Your task to perform on an android device: Do I have any events this weekend? Image 0: 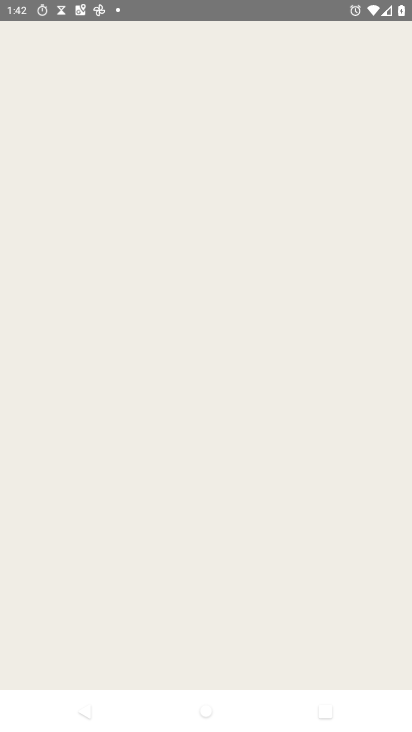
Step 0: press home button
Your task to perform on an android device: Do I have any events this weekend? Image 1: 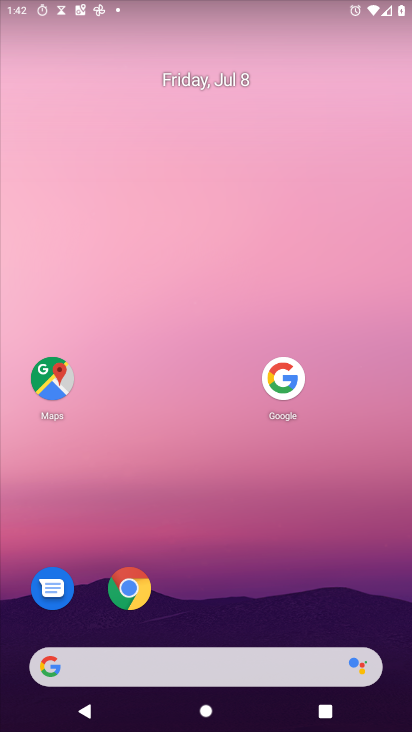
Step 1: drag from (153, 670) to (290, 147)
Your task to perform on an android device: Do I have any events this weekend? Image 2: 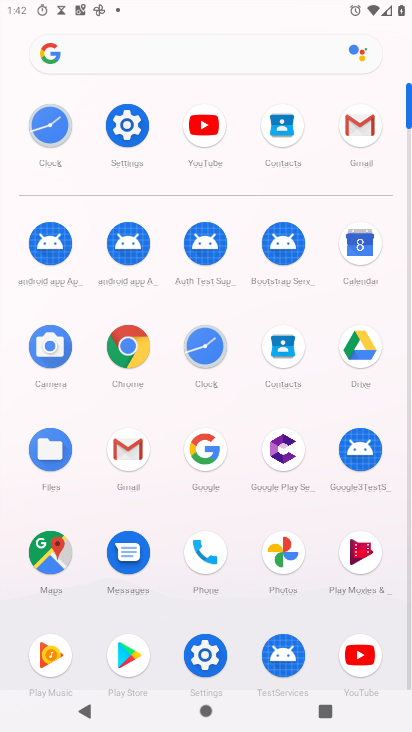
Step 2: click (357, 252)
Your task to perform on an android device: Do I have any events this weekend? Image 3: 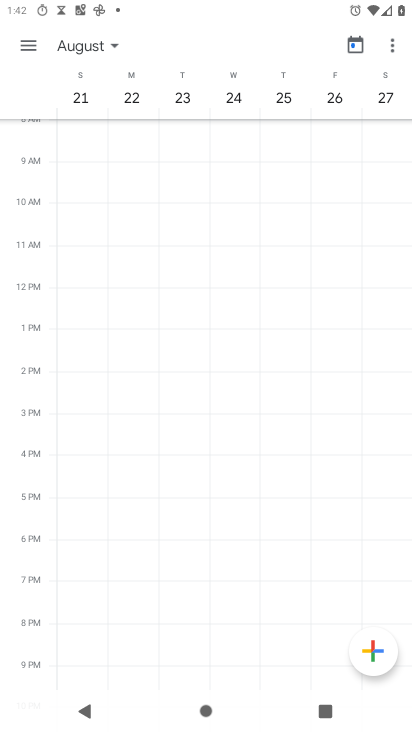
Step 3: click (65, 44)
Your task to perform on an android device: Do I have any events this weekend? Image 4: 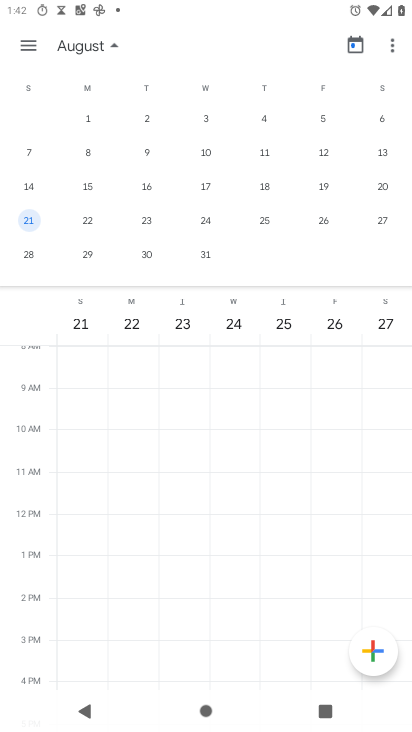
Step 4: drag from (55, 183) to (344, 182)
Your task to perform on an android device: Do I have any events this weekend? Image 5: 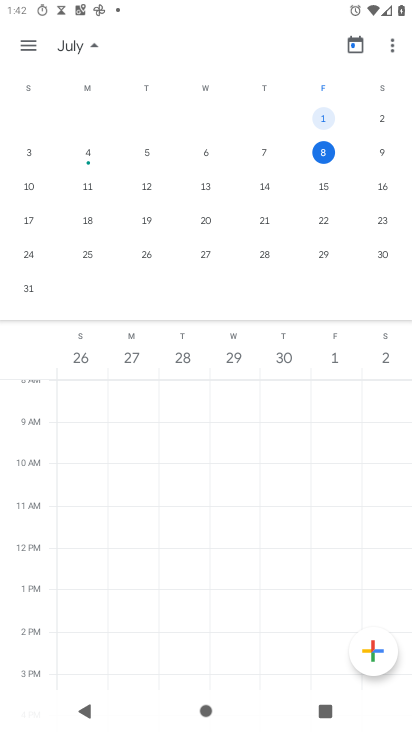
Step 5: click (376, 147)
Your task to perform on an android device: Do I have any events this weekend? Image 6: 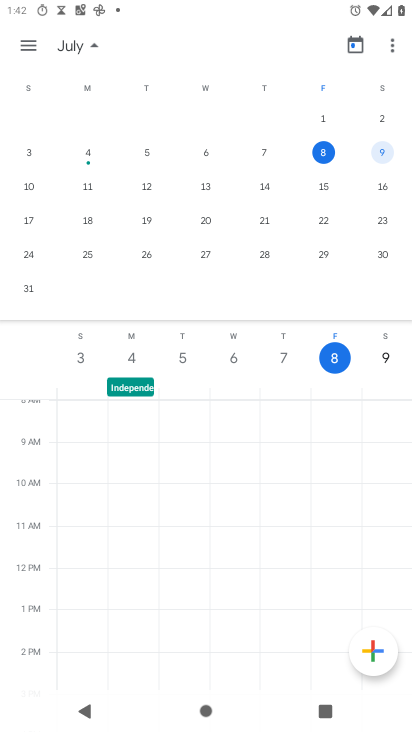
Step 6: click (24, 43)
Your task to perform on an android device: Do I have any events this weekend? Image 7: 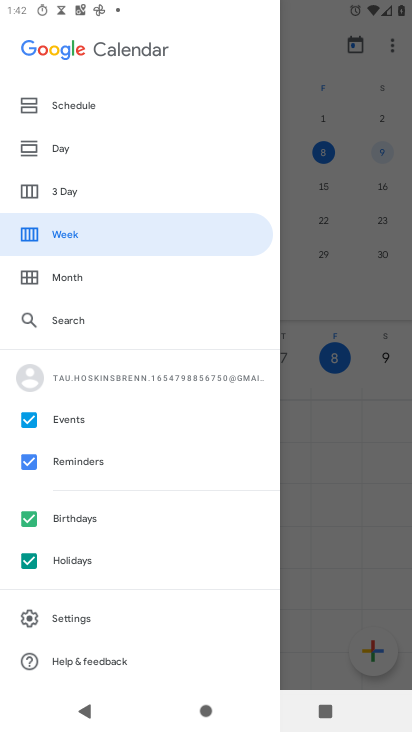
Step 7: click (78, 106)
Your task to perform on an android device: Do I have any events this weekend? Image 8: 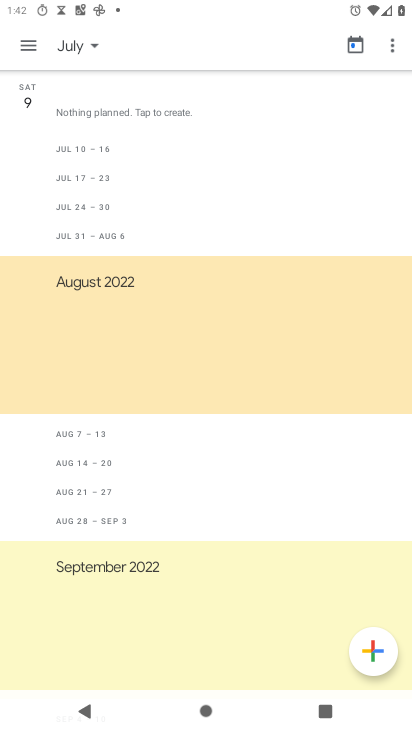
Step 8: click (149, 105)
Your task to perform on an android device: Do I have any events this weekend? Image 9: 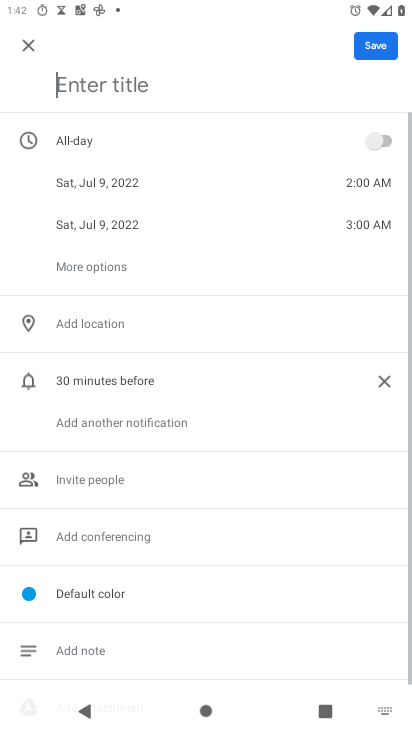
Step 9: click (154, 112)
Your task to perform on an android device: Do I have any events this weekend? Image 10: 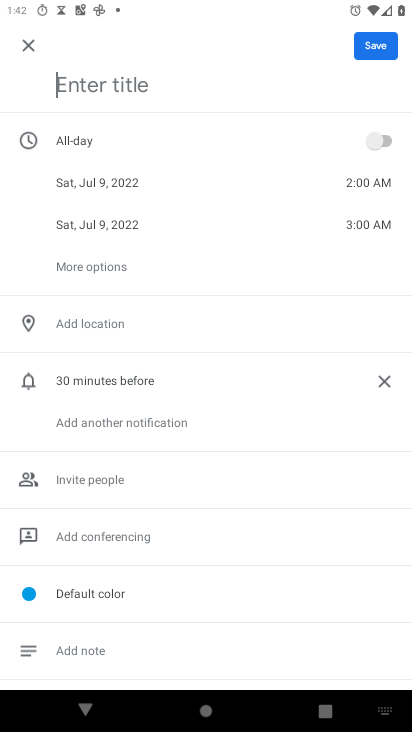
Step 10: task complete